Your task to perform on an android device: Open Google Maps Image 0: 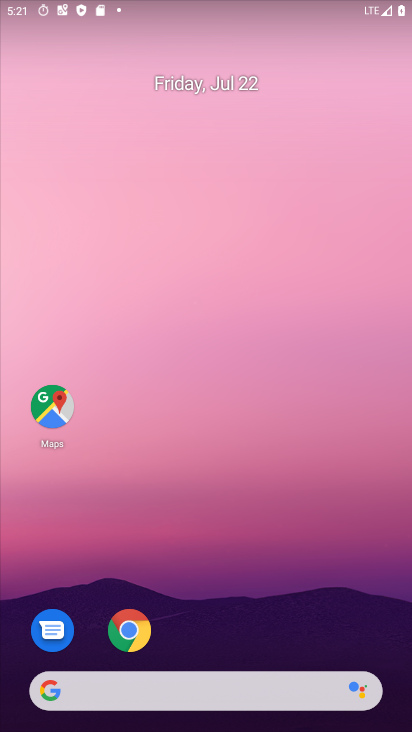
Step 0: drag from (240, 676) to (166, 20)
Your task to perform on an android device: Open Google Maps Image 1: 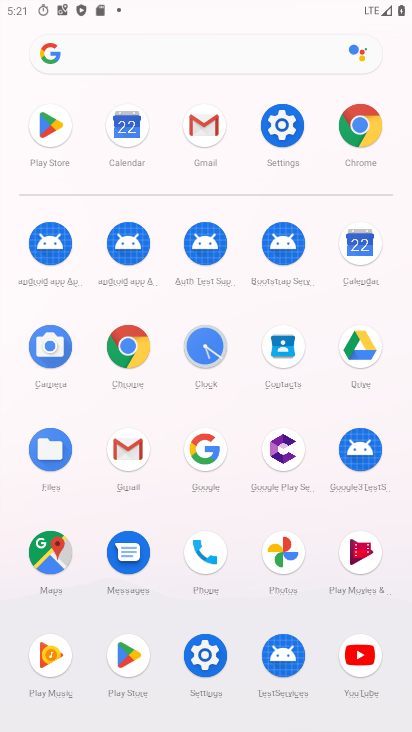
Step 1: click (51, 558)
Your task to perform on an android device: Open Google Maps Image 2: 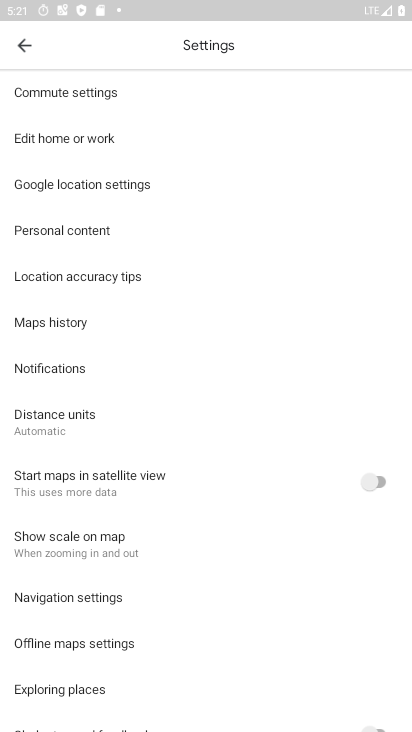
Step 2: task complete